Your task to perform on an android device: Open battery settings Image 0: 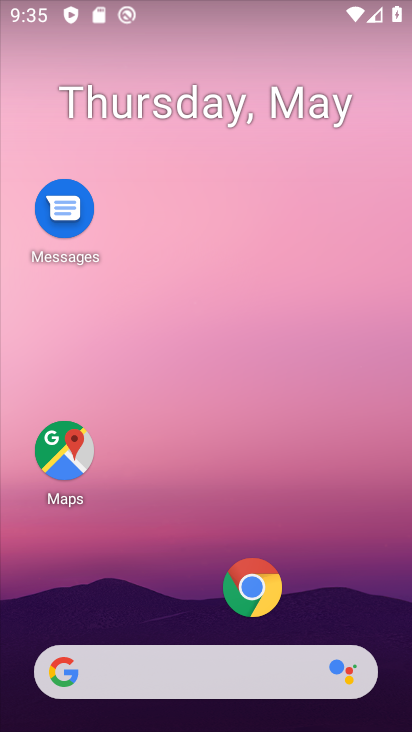
Step 0: drag from (203, 635) to (123, 36)
Your task to perform on an android device: Open battery settings Image 1: 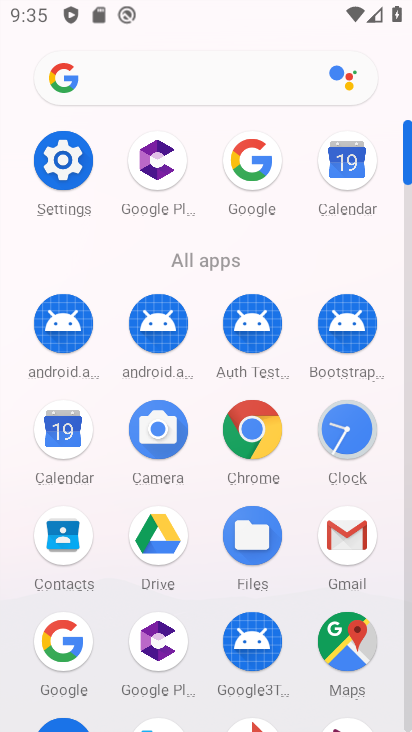
Step 1: click (71, 172)
Your task to perform on an android device: Open battery settings Image 2: 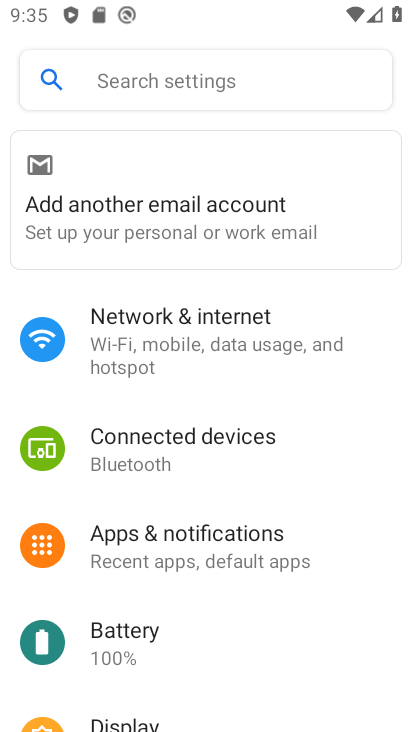
Step 2: click (169, 620)
Your task to perform on an android device: Open battery settings Image 3: 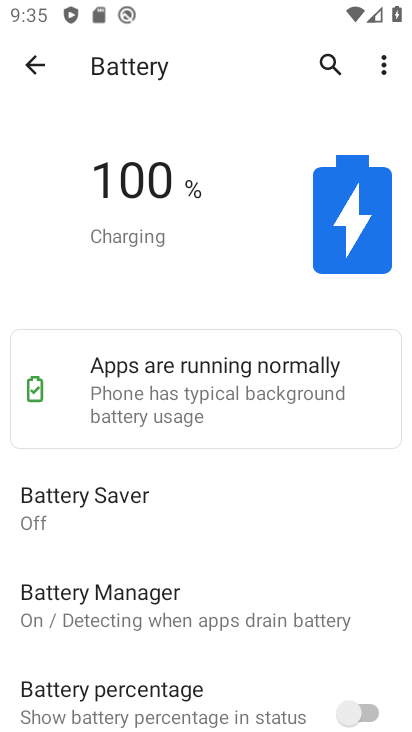
Step 3: task complete